Your task to perform on an android device: Search for Mexican restaurants on Maps Image 0: 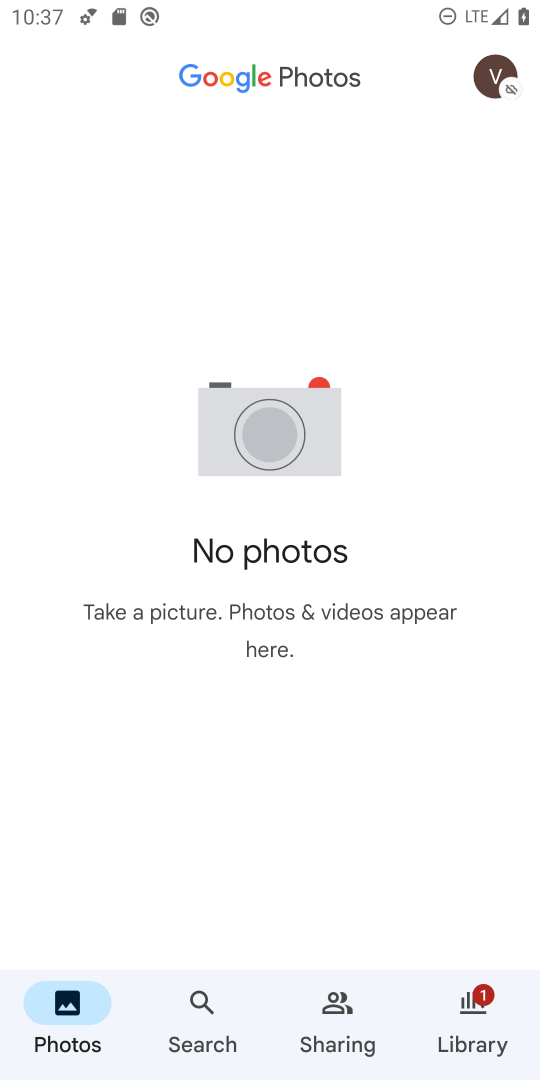
Step 0: press home button
Your task to perform on an android device: Search for Mexican restaurants on Maps Image 1: 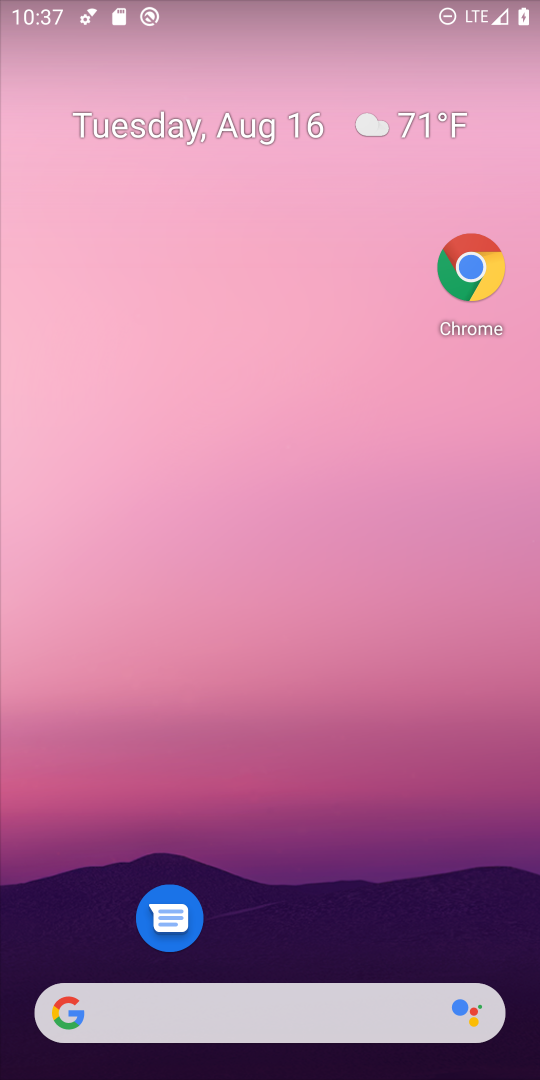
Step 1: drag from (527, 719) to (503, 251)
Your task to perform on an android device: Search for Mexican restaurants on Maps Image 2: 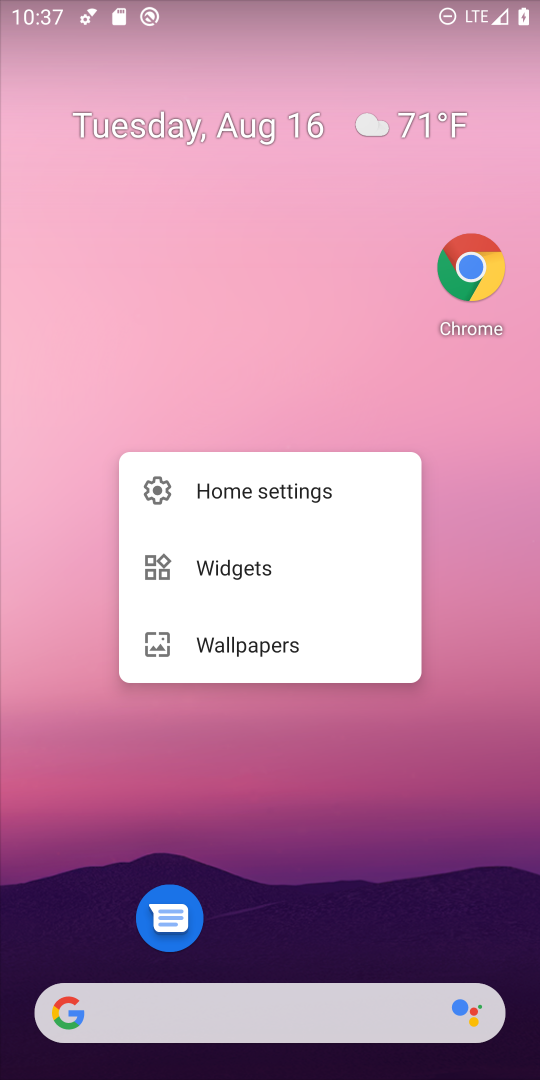
Step 2: click (200, 356)
Your task to perform on an android device: Search for Mexican restaurants on Maps Image 3: 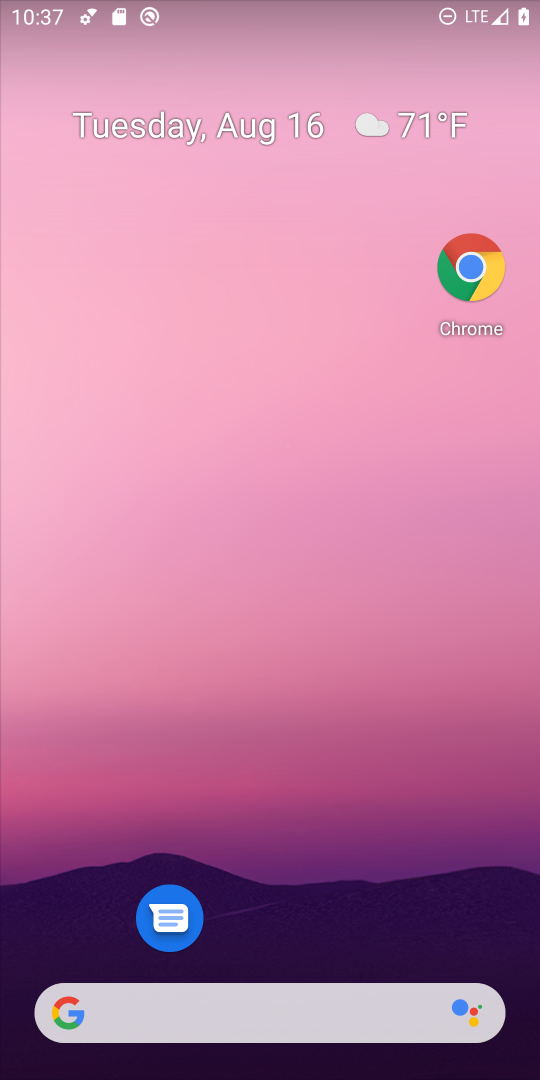
Step 3: drag from (234, 882) to (310, 56)
Your task to perform on an android device: Search for Mexican restaurants on Maps Image 4: 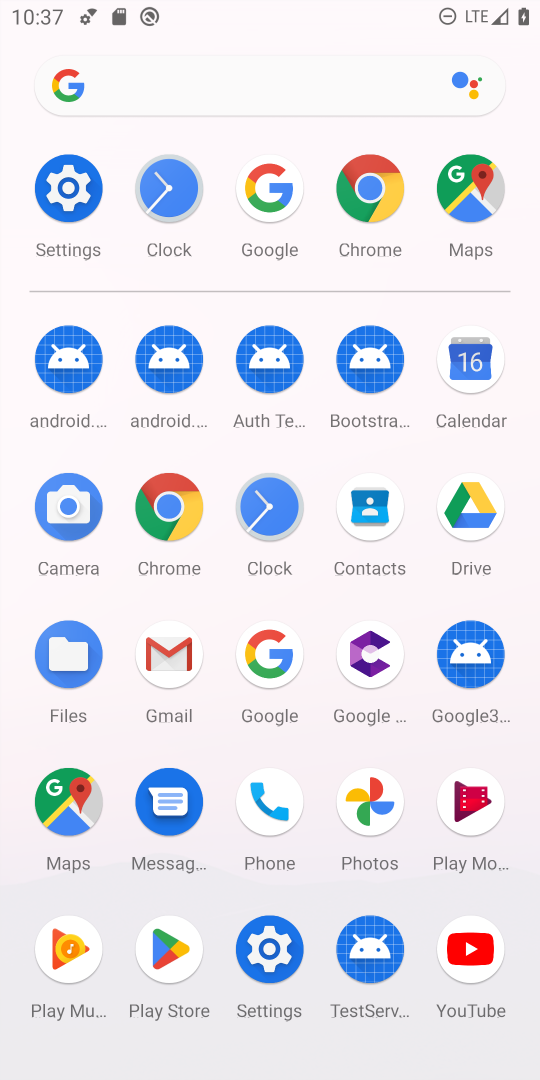
Step 4: click (463, 215)
Your task to perform on an android device: Search for Mexican restaurants on Maps Image 5: 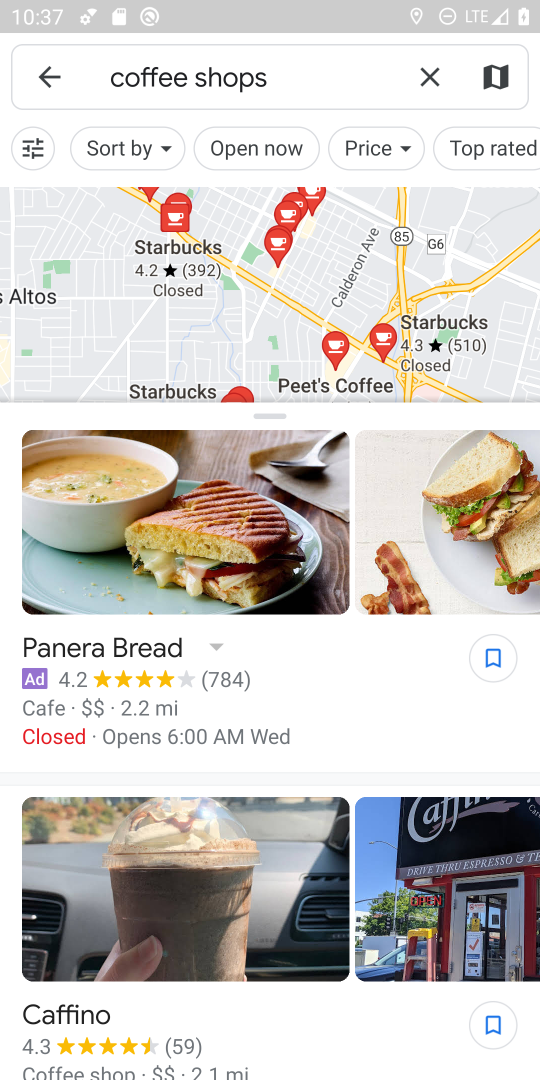
Step 5: click (424, 79)
Your task to perform on an android device: Search for Mexican restaurants on Maps Image 6: 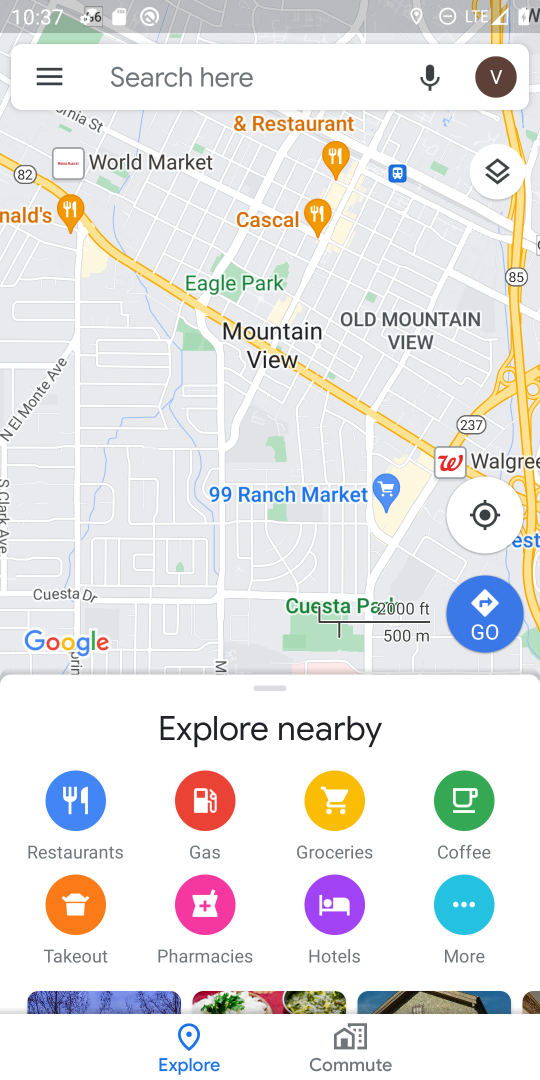
Step 6: click (334, 89)
Your task to perform on an android device: Search for Mexican restaurants on Maps Image 7: 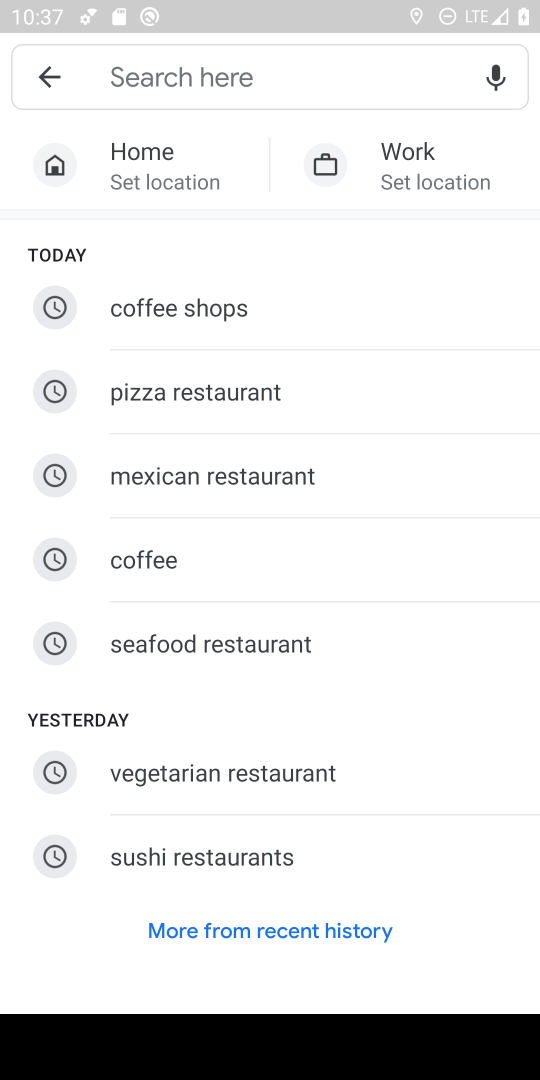
Step 7: click (245, 484)
Your task to perform on an android device: Search for Mexican restaurants on Maps Image 8: 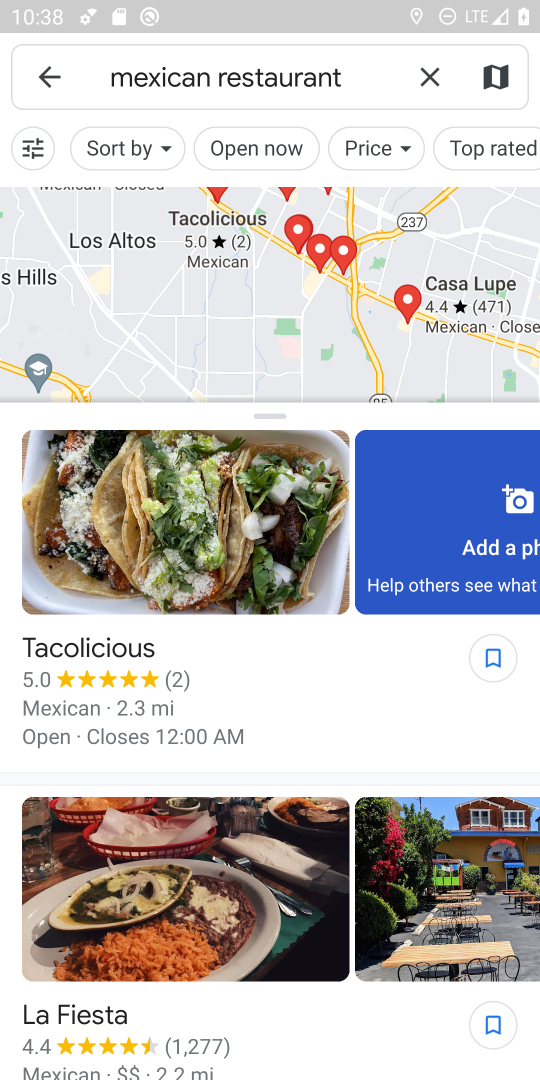
Step 8: task complete